Your task to perform on an android device: turn on notifications settings in the gmail app Image 0: 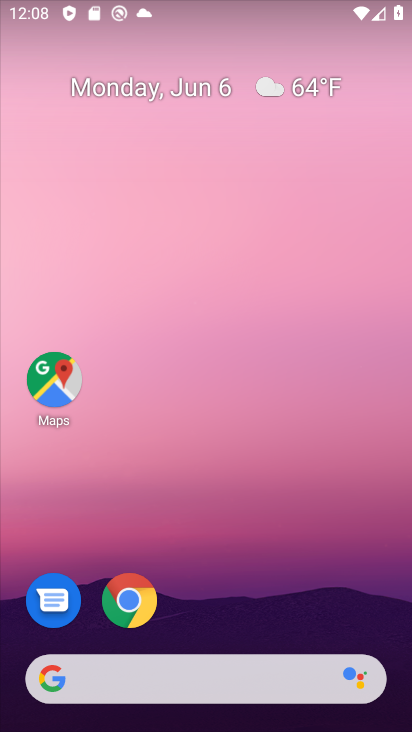
Step 0: drag from (398, 699) to (378, 56)
Your task to perform on an android device: turn on notifications settings in the gmail app Image 1: 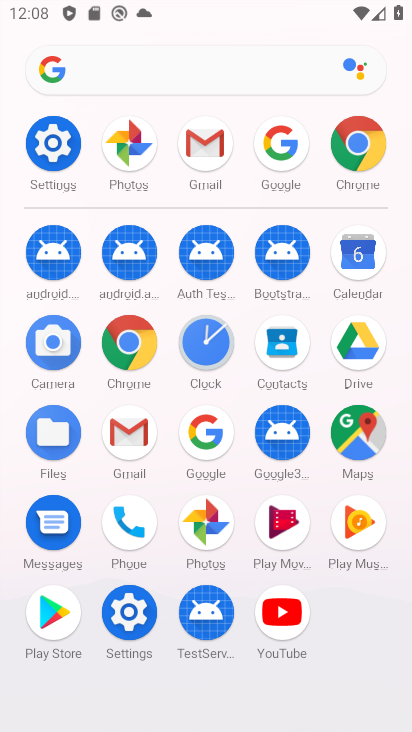
Step 1: click (131, 437)
Your task to perform on an android device: turn on notifications settings in the gmail app Image 2: 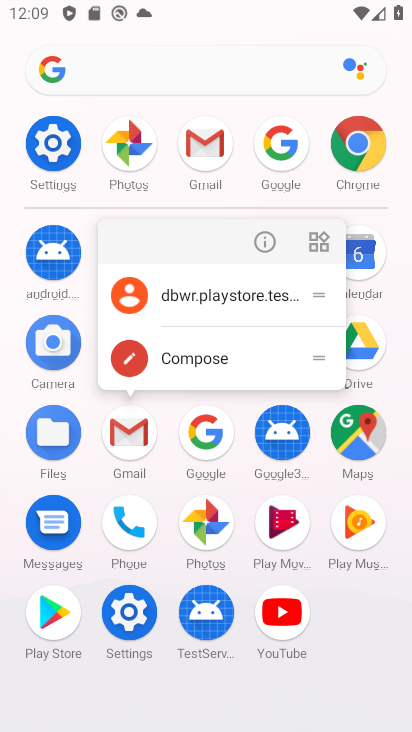
Step 2: click (113, 434)
Your task to perform on an android device: turn on notifications settings in the gmail app Image 3: 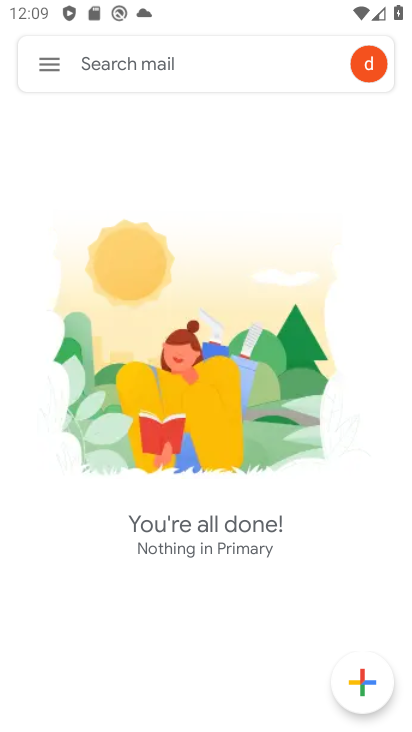
Step 3: click (51, 71)
Your task to perform on an android device: turn on notifications settings in the gmail app Image 4: 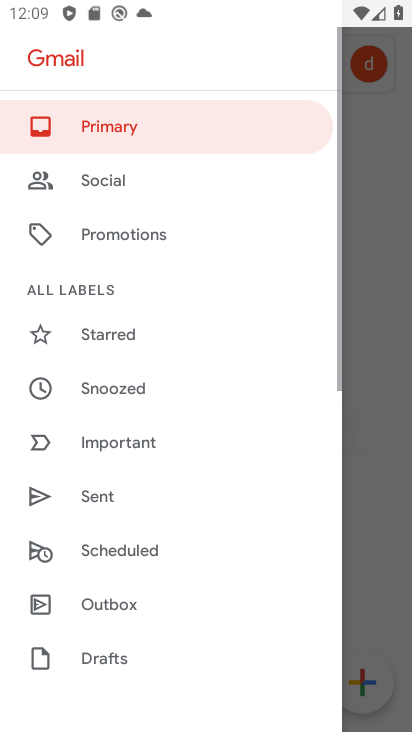
Step 4: click (185, 213)
Your task to perform on an android device: turn on notifications settings in the gmail app Image 5: 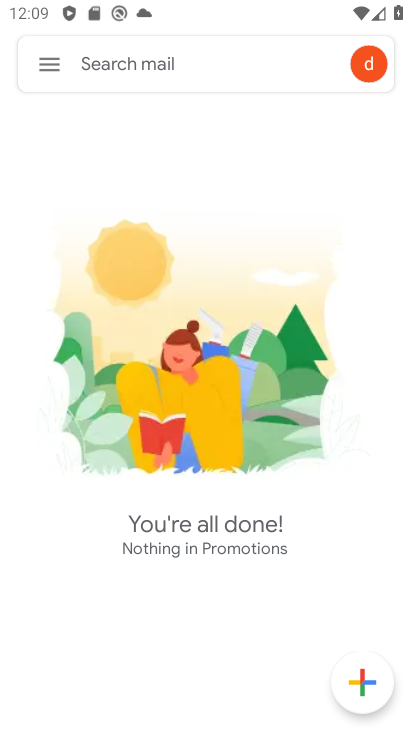
Step 5: click (52, 57)
Your task to perform on an android device: turn on notifications settings in the gmail app Image 6: 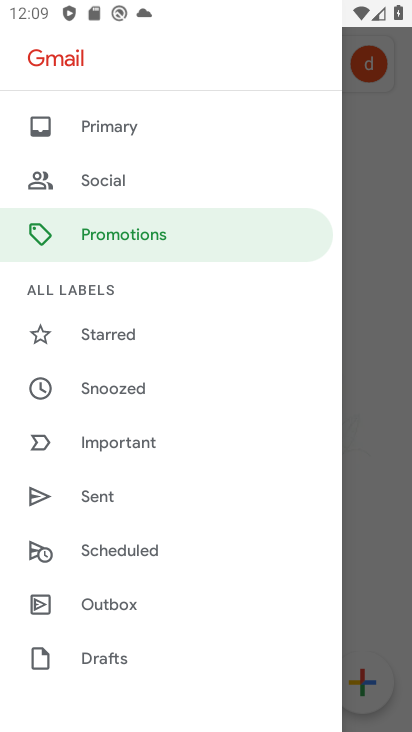
Step 6: drag from (223, 612) to (192, 270)
Your task to perform on an android device: turn on notifications settings in the gmail app Image 7: 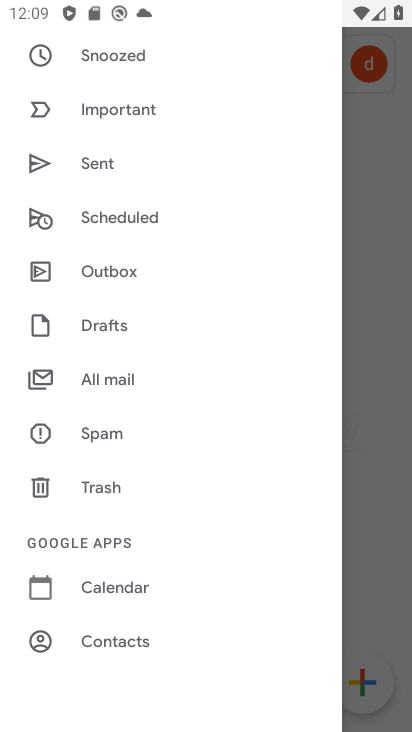
Step 7: drag from (179, 606) to (161, 209)
Your task to perform on an android device: turn on notifications settings in the gmail app Image 8: 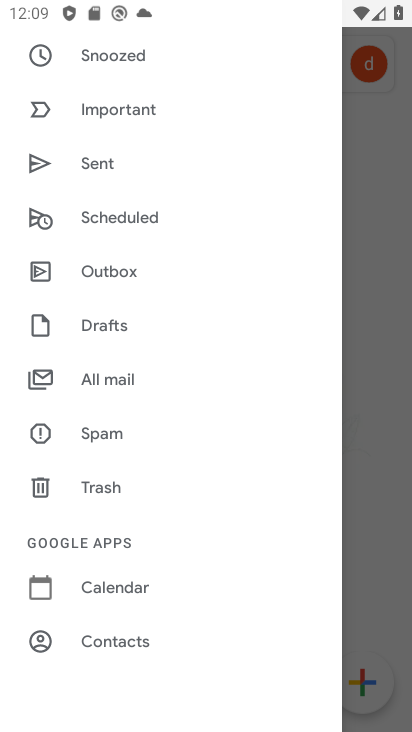
Step 8: drag from (206, 605) to (206, 262)
Your task to perform on an android device: turn on notifications settings in the gmail app Image 9: 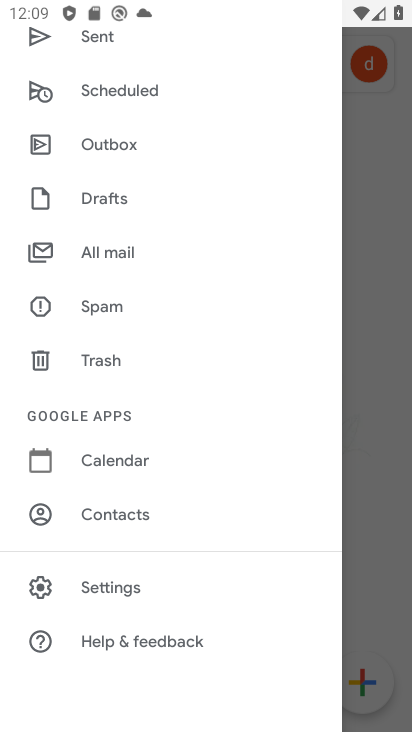
Step 9: click (104, 591)
Your task to perform on an android device: turn on notifications settings in the gmail app Image 10: 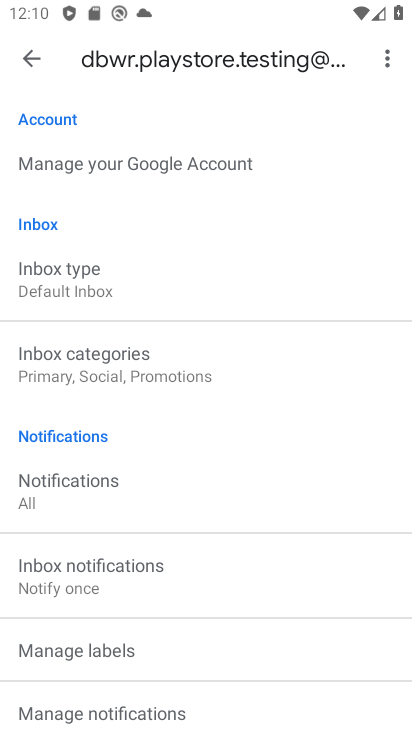
Step 10: click (23, 62)
Your task to perform on an android device: turn on notifications settings in the gmail app Image 11: 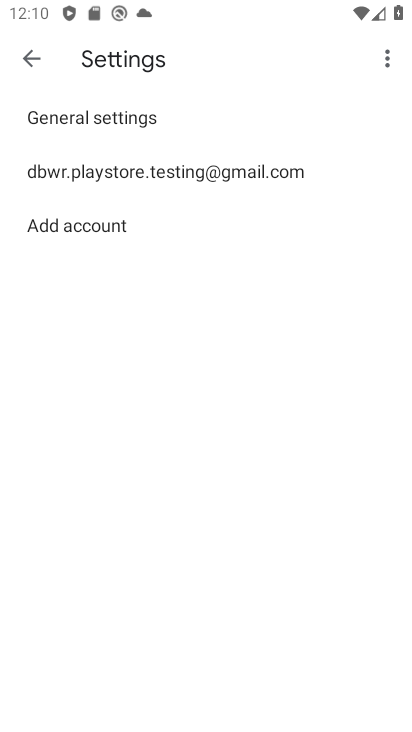
Step 11: click (98, 116)
Your task to perform on an android device: turn on notifications settings in the gmail app Image 12: 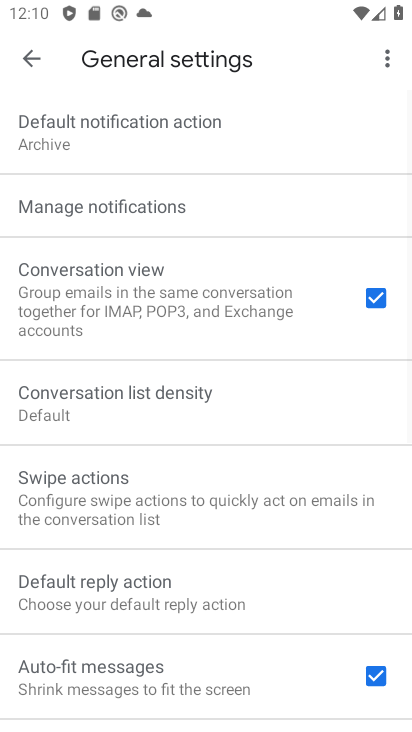
Step 12: click (113, 197)
Your task to perform on an android device: turn on notifications settings in the gmail app Image 13: 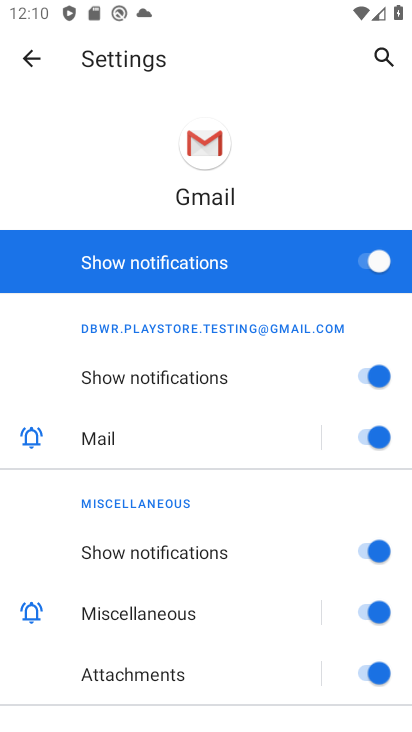
Step 13: task complete